Your task to perform on an android device: Go to ESPN.com Image 0: 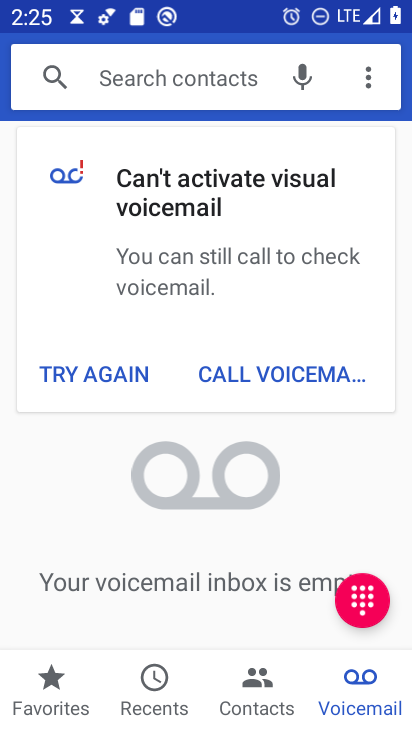
Step 0: press home button
Your task to perform on an android device: Go to ESPN.com Image 1: 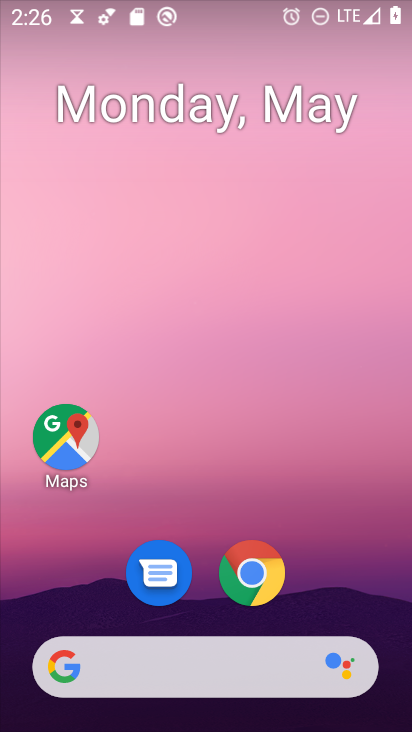
Step 1: drag from (324, 684) to (360, 5)
Your task to perform on an android device: Go to ESPN.com Image 2: 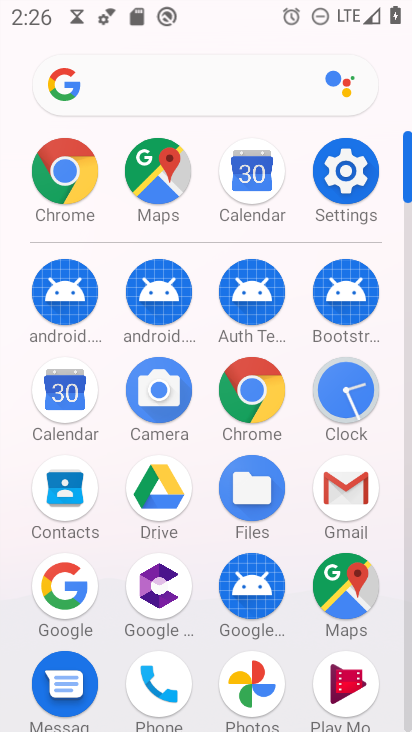
Step 2: click (242, 395)
Your task to perform on an android device: Go to ESPN.com Image 3: 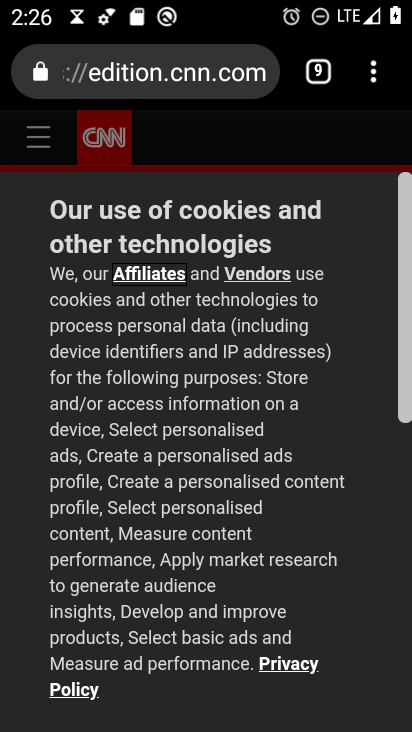
Step 3: click (202, 78)
Your task to perform on an android device: Go to ESPN.com Image 4: 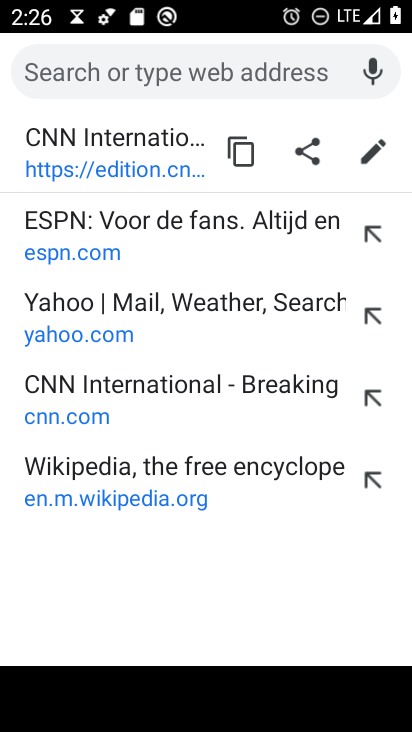
Step 4: click (193, 248)
Your task to perform on an android device: Go to ESPN.com Image 5: 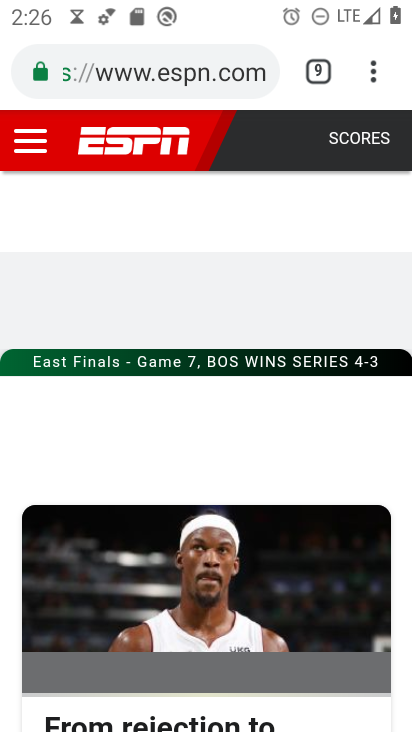
Step 5: task complete